Your task to perform on an android device: turn off airplane mode Image 0: 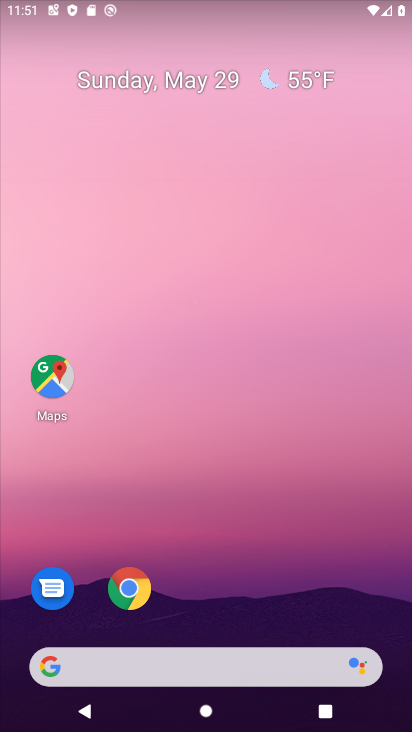
Step 0: drag from (344, 541) to (220, 16)
Your task to perform on an android device: turn off airplane mode Image 1: 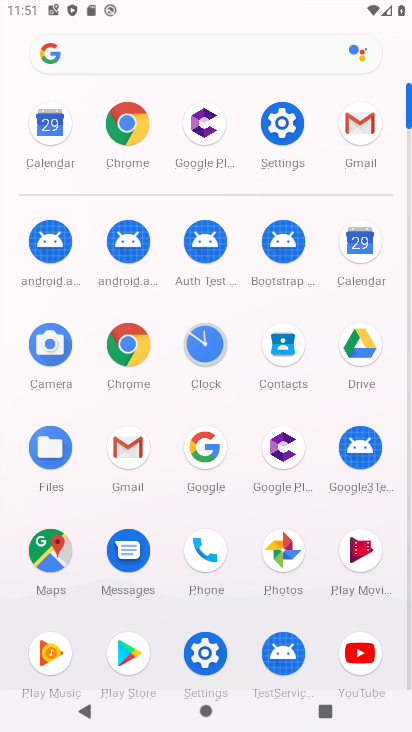
Step 1: click (277, 127)
Your task to perform on an android device: turn off airplane mode Image 2: 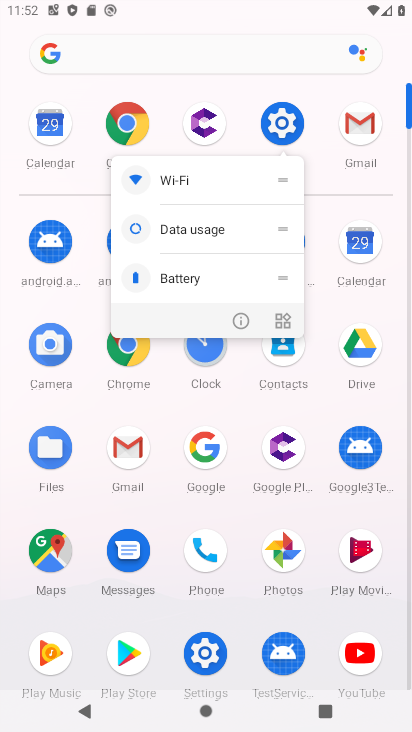
Step 2: click (277, 126)
Your task to perform on an android device: turn off airplane mode Image 3: 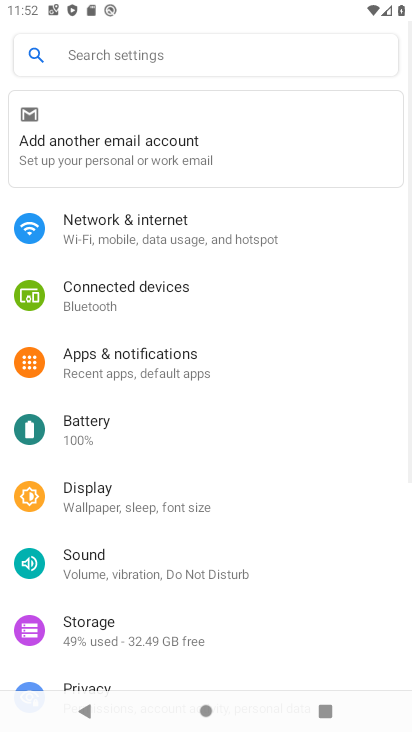
Step 3: drag from (263, 131) to (251, 560)
Your task to perform on an android device: turn off airplane mode Image 4: 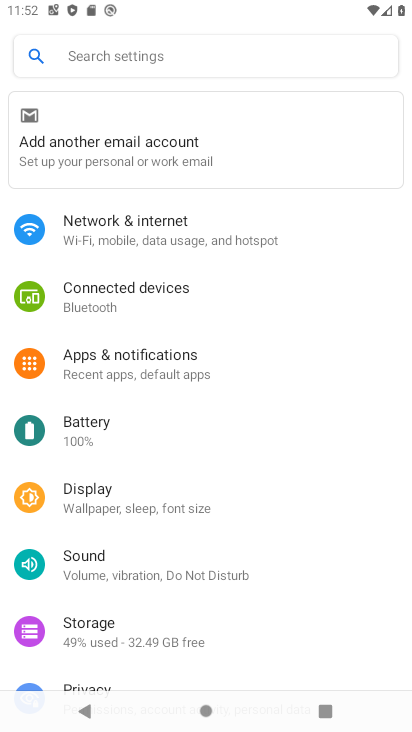
Step 4: click (132, 245)
Your task to perform on an android device: turn off airplane mode Image 5: 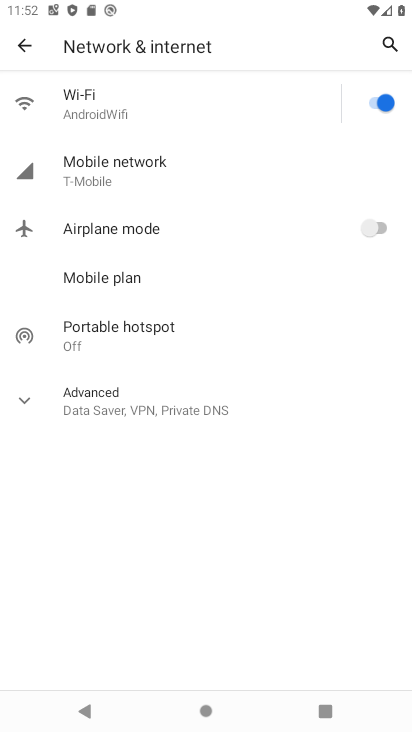
Step 5: task complete